Your task to perform on an android device: empty trash in the gmail app Image 0: 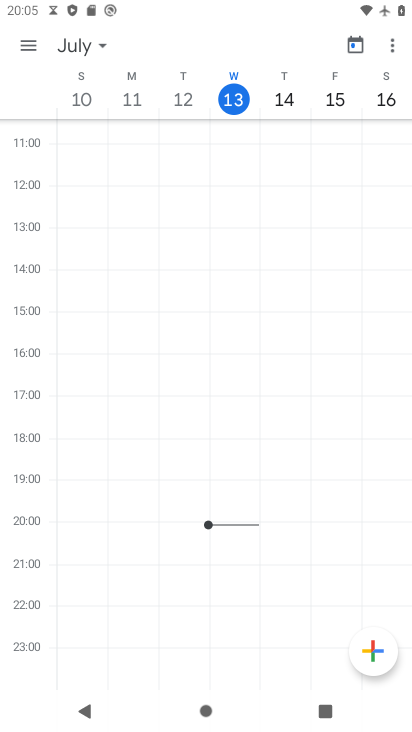
Step 0: press home button
Your task to perform on an android device: empty trash in the gmail app Image 1: 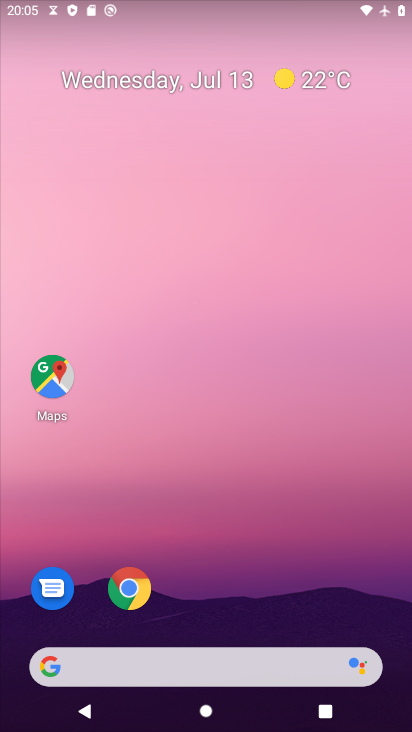
Step 1: drag from (287, 612) to (247, 169)
Your task to perform on an android device: empty trash in the gmail app Image 2: 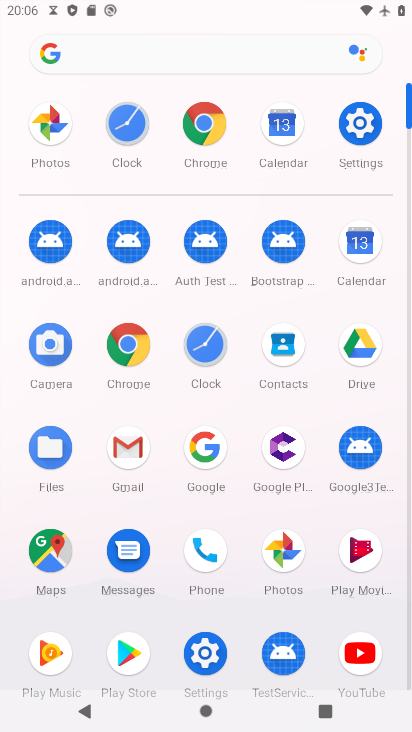
Step 2: click (126, 449)
Your task to perform on an android device: empty trash in the gmail app Image 3: 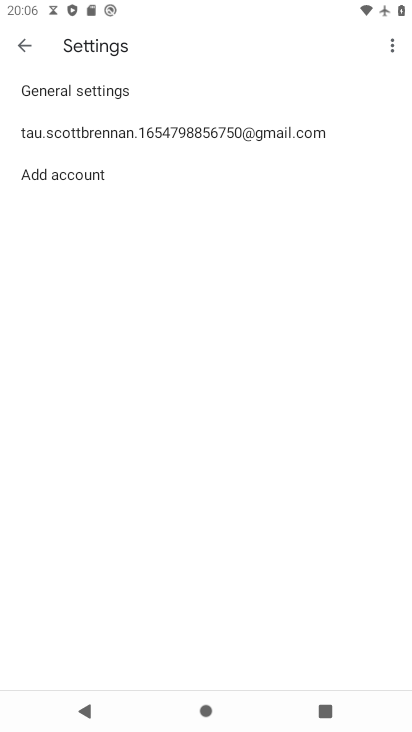
Step 3: click (13, 35)
Your task to perform on an android device: empty trash in the gmail app Image 4: 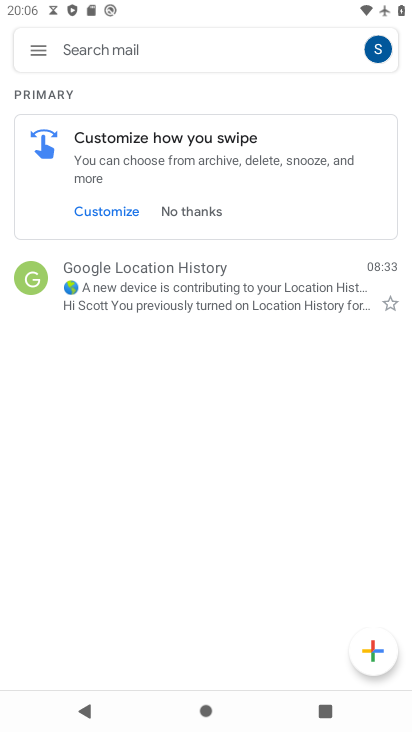
Step 4: click (26, 44)
Your task to perform on an android device: empty trash in the gmail app Image 5: 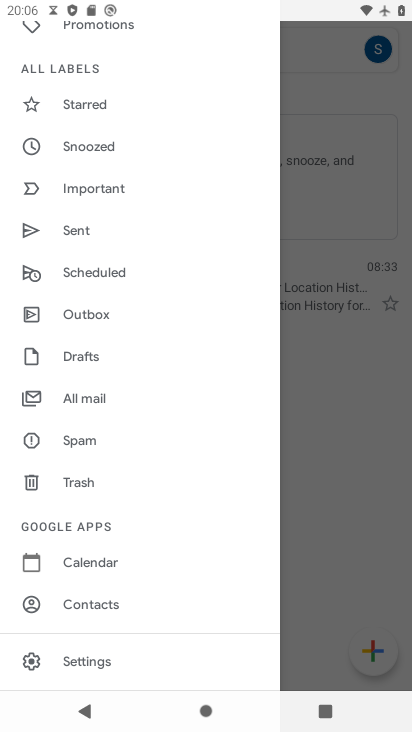
Step 5: click (78, 486)
Your task to perform on an android device: empty trash in the gmail app Image 6: 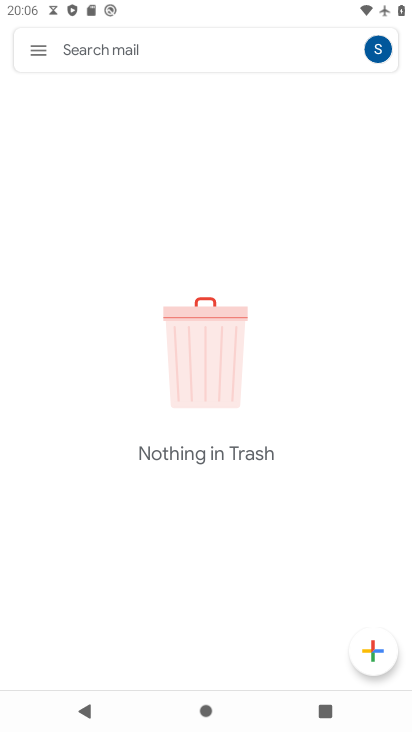
Step 6: task complete